Your task to perform on an android device: turn on notifications settings in the gmail app Image 0: 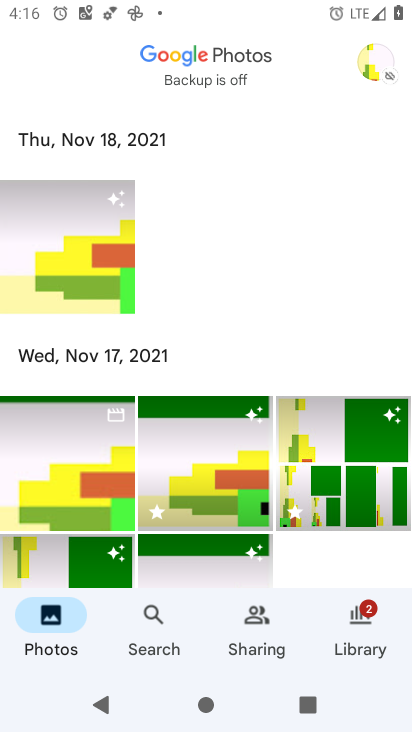
Step 0: press home button
Your task to perform on an android device: turn on notifications settings in the gmail app Image 1: 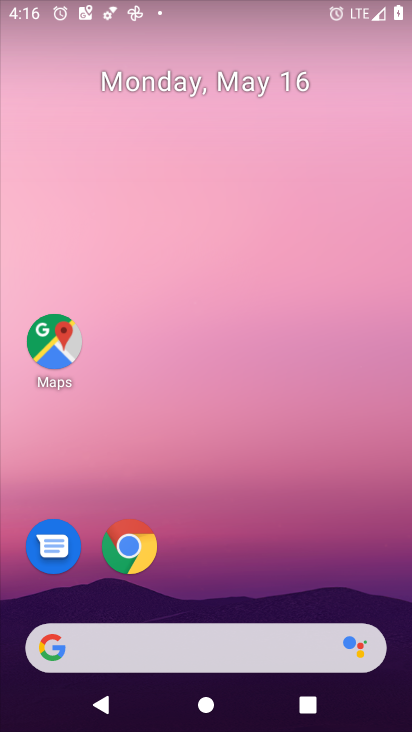
Step 1: drag from (320, 584) to (309, 27)
Your task to perform on an android device: turn on notifications settings in the gmail app Image 2: 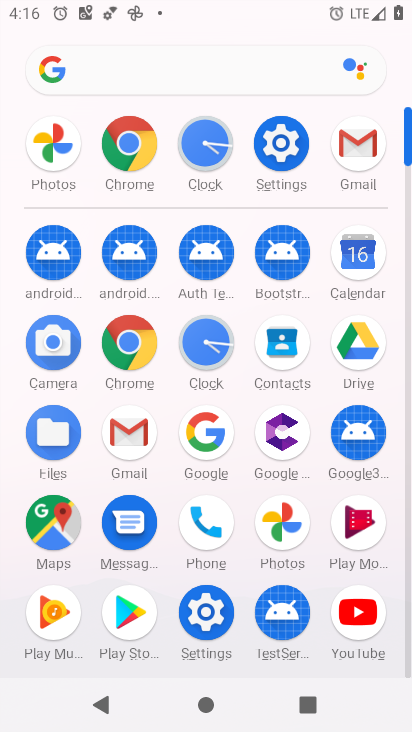
Step 2: click (146, 435)
Your task to perform on an android device: turn on notifications settings in the gmail app Image 3: 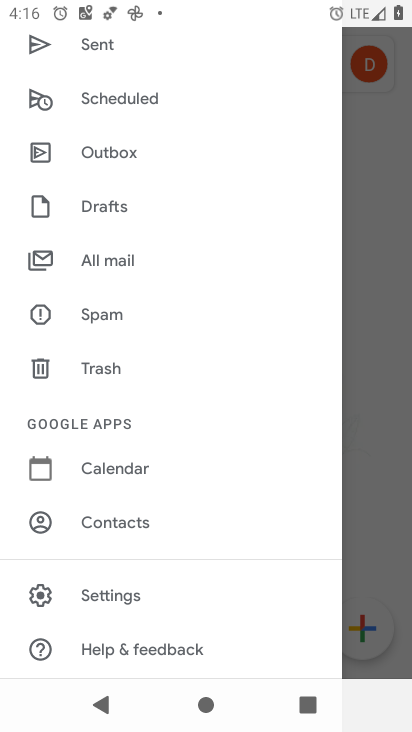
Step 3: drag from (264, 294) to (280, 459)
Your task to perform on an android device: turn on notifications settings in the gmail app Image 4: 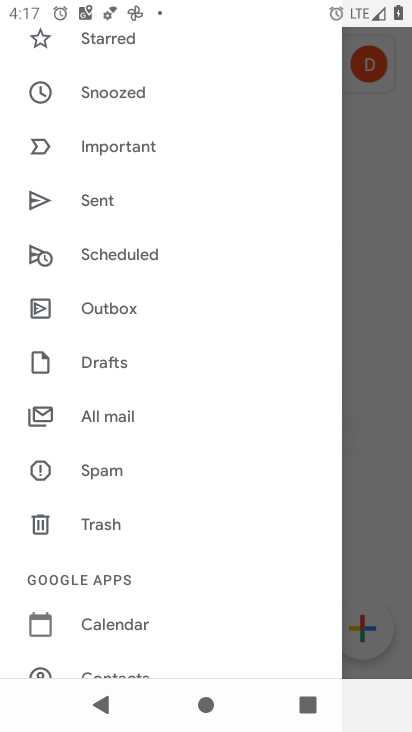
Step 4: drag from (278, 230) to (275, 403)
Your task to perform on an android device: turn on notifications settings in the gmail app Image 5: 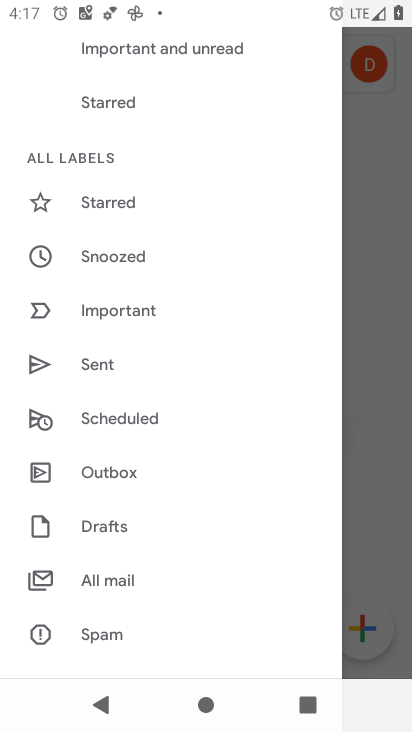
Step 5: drag from (281, 208) to (266, 372)
Your task to perform on an android device: turn on notifications settings in the gmail app Image 6: 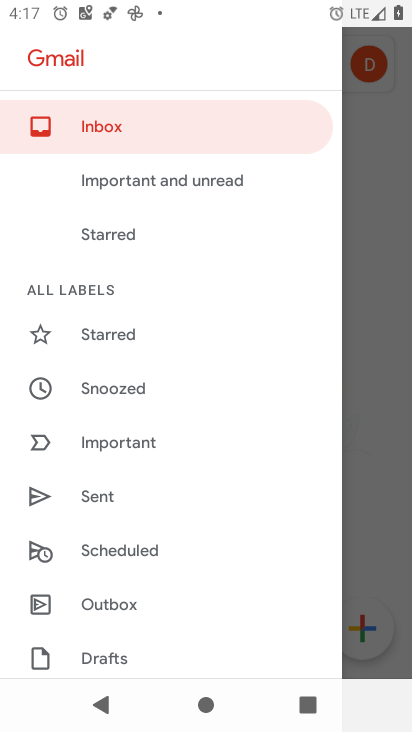
Step 6: drag from (236, 600) to (251, 443)
Your task to perform on an android device: turn on notifications settings in the gmail app Image 7: 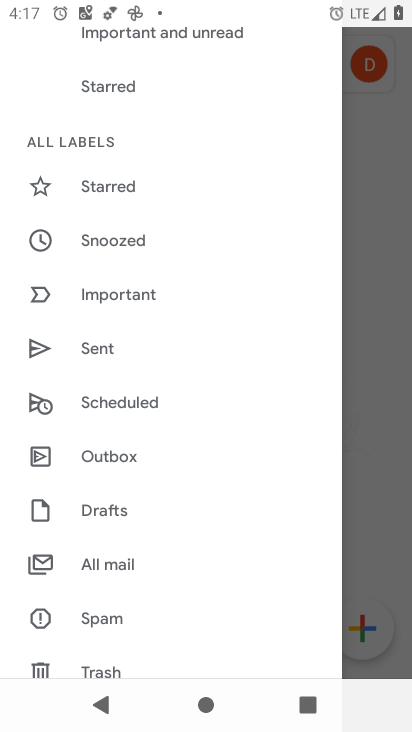
Step 7: drag from (227, 623) to (261, 432)
Your task to perform on an android device: turn on notifications settings in the gmail app Image 8: 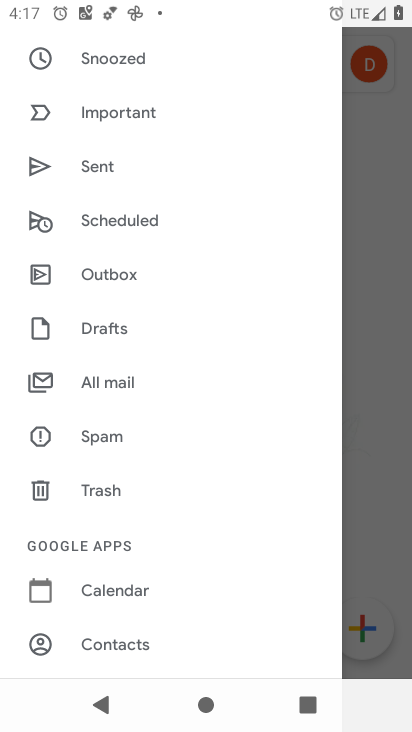
Step 8: drag from (233, 637) to (261, 438)
Your task to perform on an android device: turn on notifications settings in the gmail app Image 9: 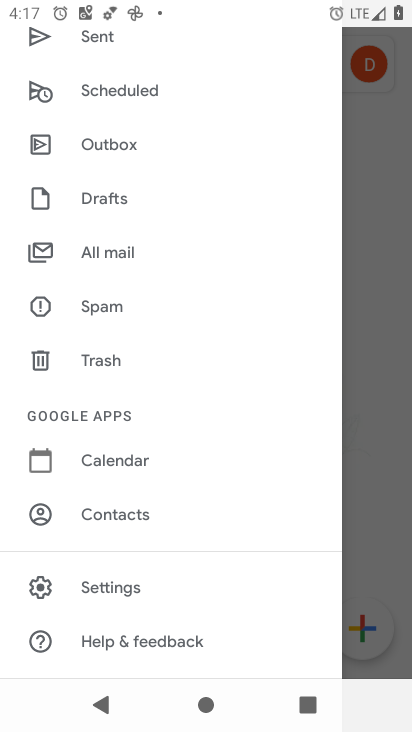
Step 9: click (154, 589)
Your task to perform on an android device: turn on notifications settings in the gmail app Image 10: 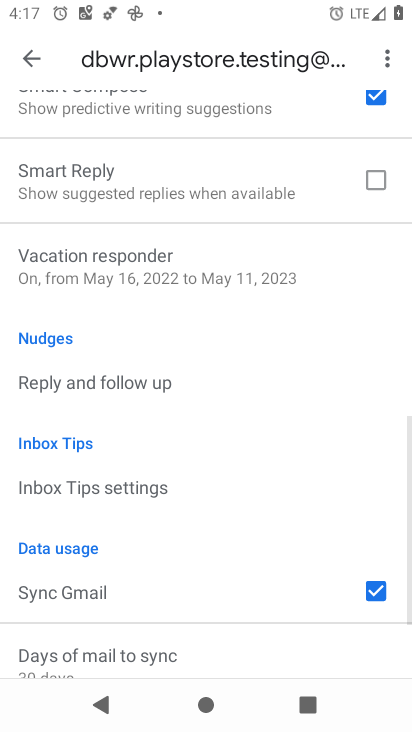
Step 10: drag from (250, 585) to (279, 367)
Your task to perform on an android device: turn on notifications settings in the gmail app Image 11: 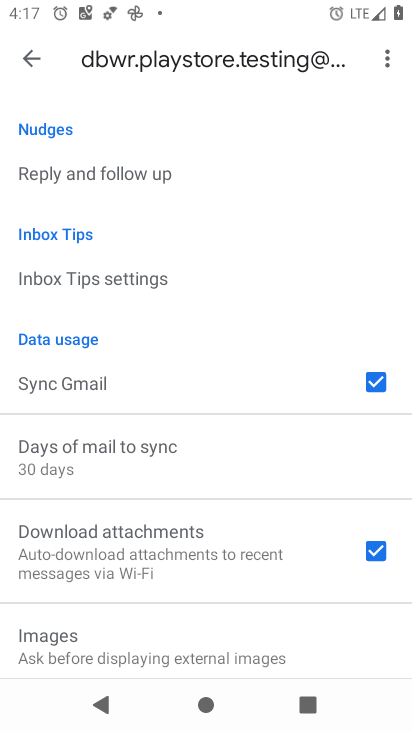
Step 11: drag from (264, 621) to (289, 410)
Your task to perform on an android device: turn on notifications settings in the gmail app Image 12: 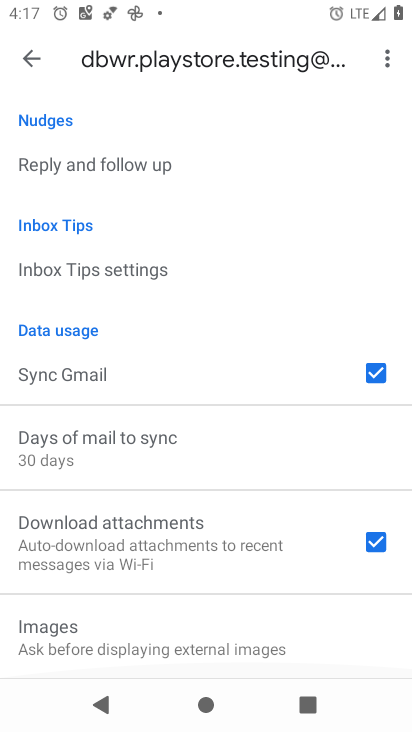
Step 12: drag from (293, 318) to (291, 474)
Your task to perform on an android device: turn on notifications settings in the gmail app Image 13: 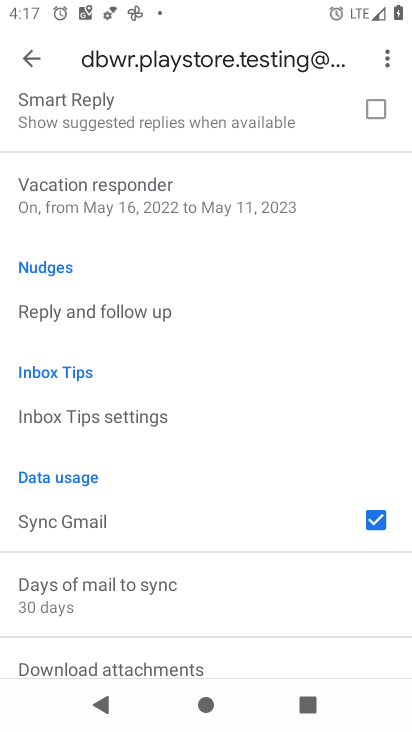
Step 13: drag from (291, 316) to (290, 486)
Your task to perform on an android device: turn on notifications settings in the gmail app Image 14: 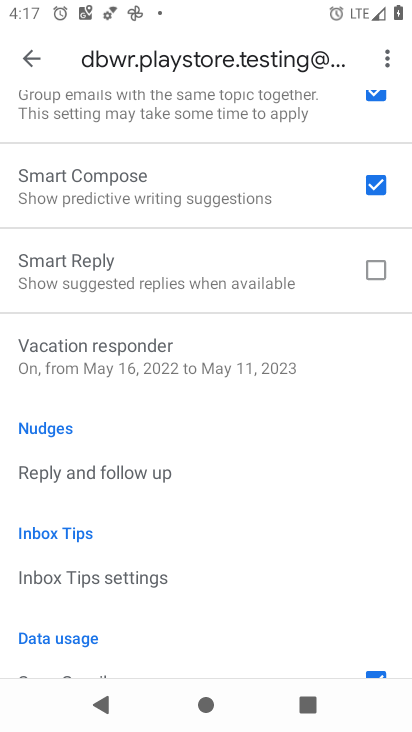
Step 14: drag from (296, 272) to (298, 414)
Your task to perform on an android device: turn on notifications settings in the gmail app Image 15: 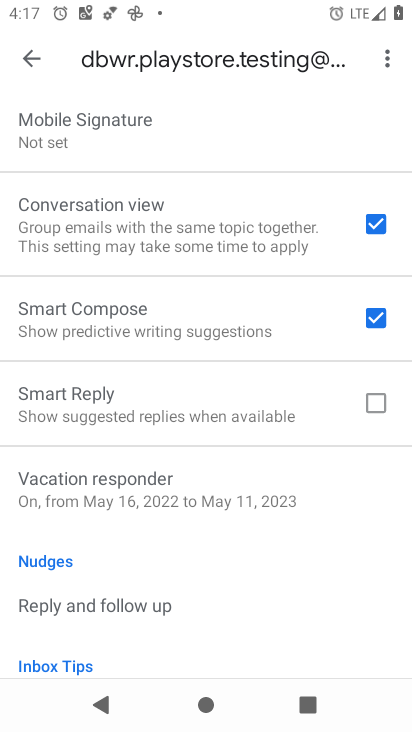
Step 15: drag from (319, 222) to (326, 353)
Your task to perform on an android device: turn on notifications settings in the gmail app Image 16: 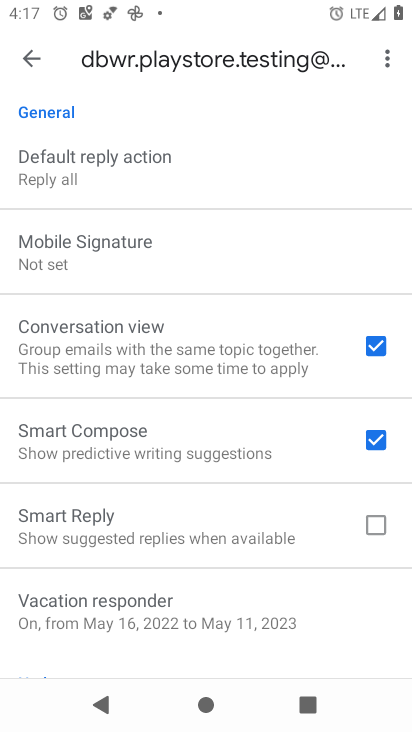
Step 16: drag from (325, 183) to (313, 320)
Your task to perform on an android device: turn on notifications settings in the gmail app Image 17: 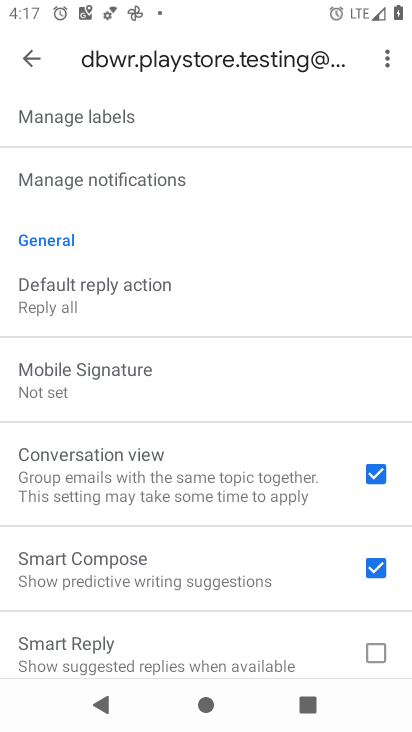
Step 17: drag from (310, 220) to (307, 368)
Your task to perform on an android device: turn on notifications settings in the gmail app Image 18: 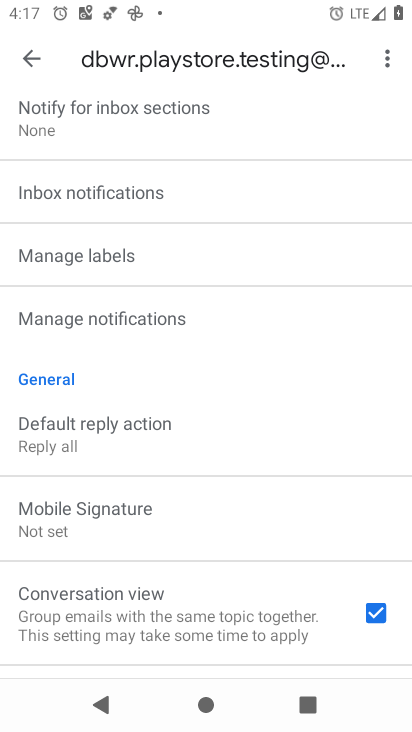
Step 18: click (219, 318)
Your task to perform on an android device: turn on notifications settings in the gmail app Image 19: 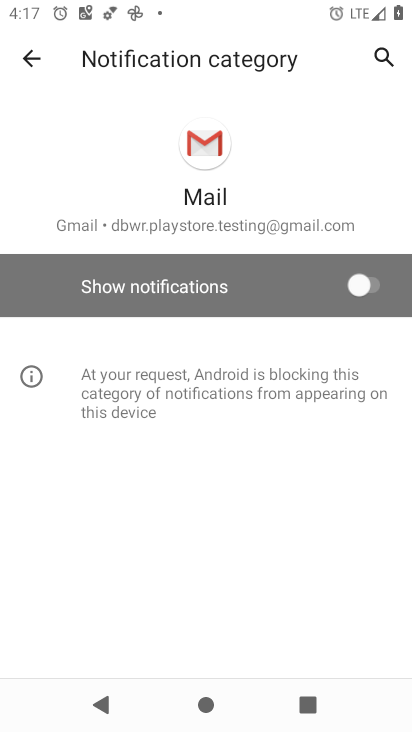
Step 19: click (367, 285)
Your task to perform on an android device: turn on notifications settings in the gmail app Image 20: 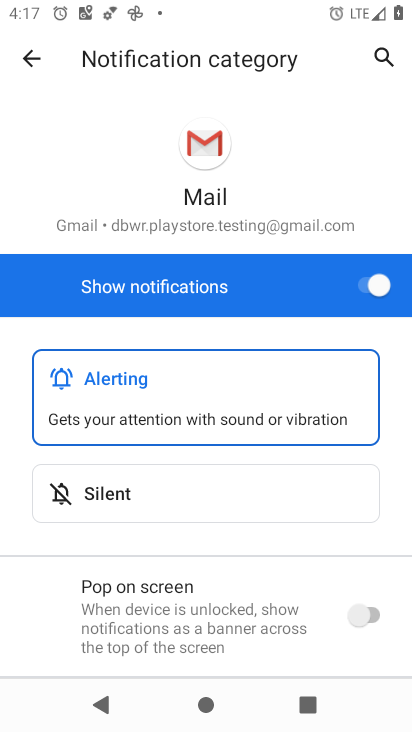
Step 20: task complete